Your task to perform on an android device: open a new tab in the chrome app Image 0: 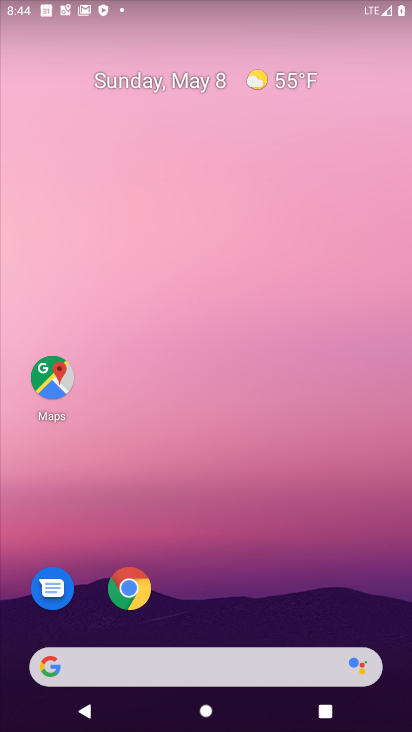
Step 0: drag from (340, 623) to (243, 97)
Your task to perform on an android device: open a new tab in the chrome app Image 1: 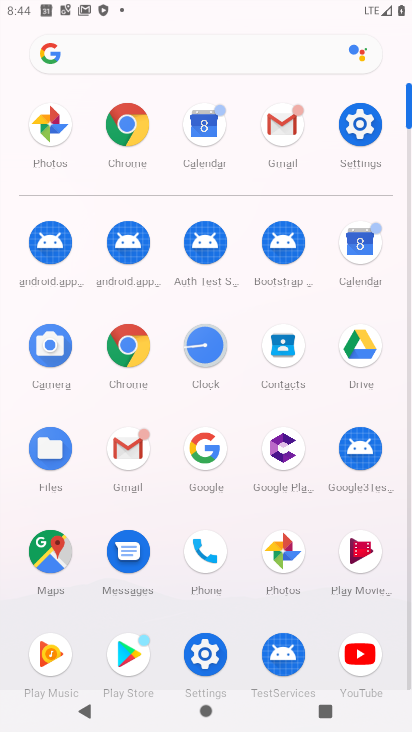
Step 1: click (126, 138)
Your task to perform on an android device: open a new tab in the chrome app Image 2: 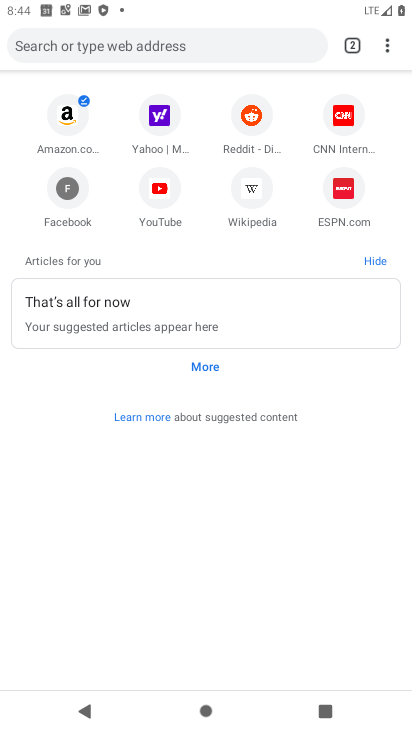
Step 2: click (354, 41)
Your task to perform on an android device: open a new tab in the chrome app Image 3: 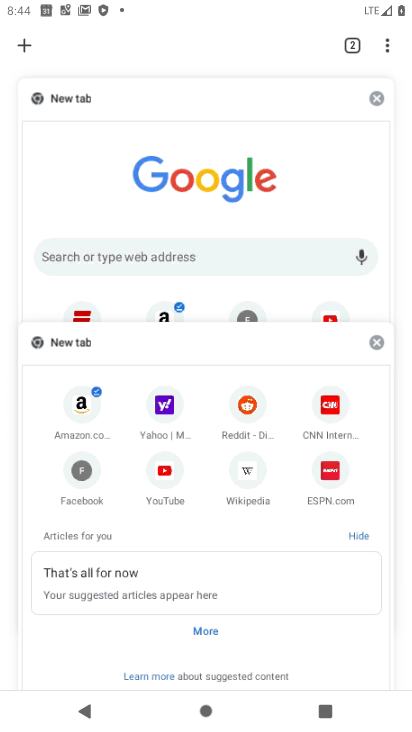
Step 3: click (375, 93)
Your task to perform on an android device: open a new tab in the chrome app Image 4: 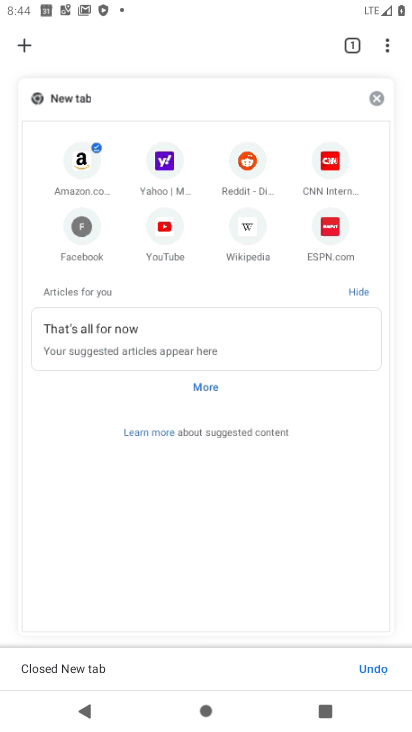
Step 4: click (385, 49)
Your task to perform on an android device: open a new tab in the chrome app Image 5: 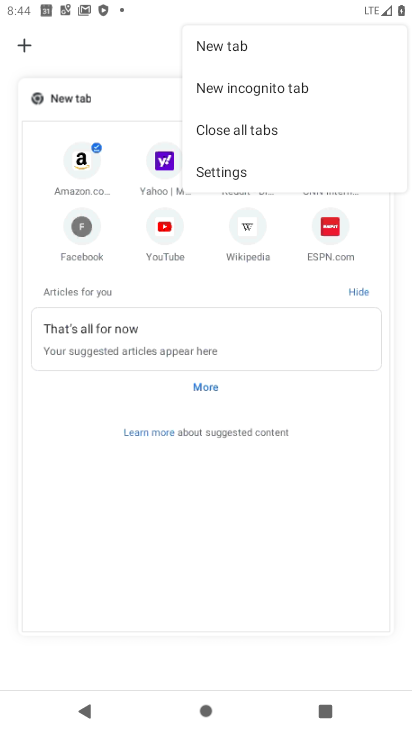
Step 5: click (313, 51)
Your task to perform on an android device: open a new tab in the chrome app Image 6: 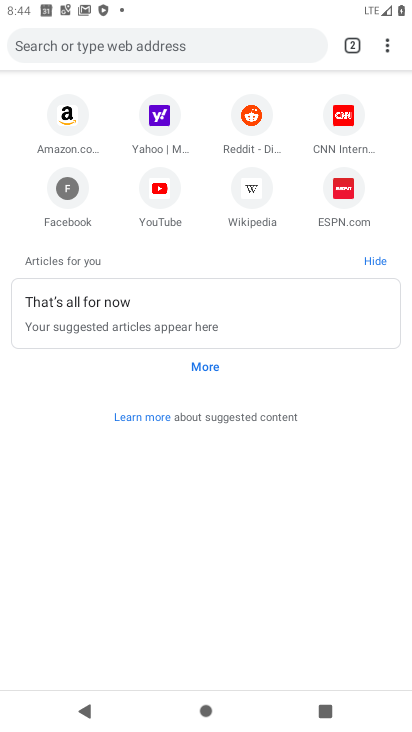
Step 6: task complete